Your task to perform on an android device: check google app version Image 0: 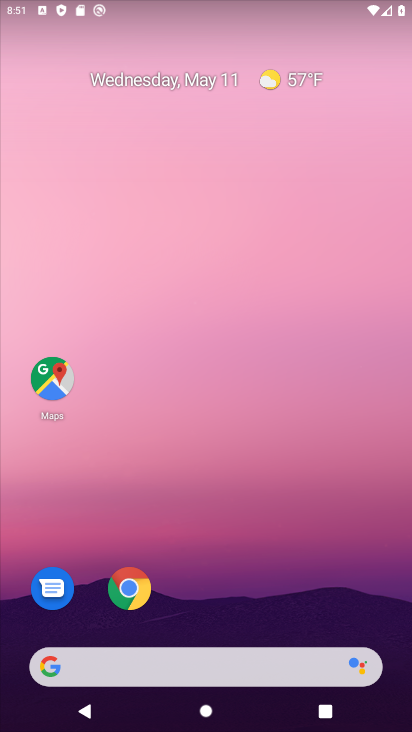
Step 0: drag from (238, 709) to (235, 201)
Your task to perform on an android device: check google app version Image 1: 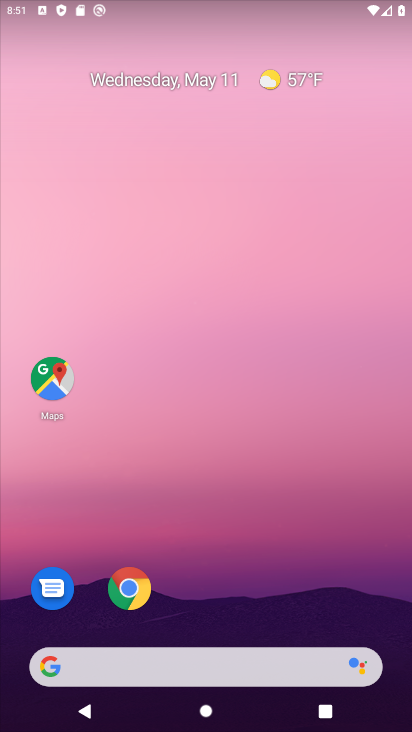
Step 1: drag from (248, 711) to (281, 156)
Your task to perform on an android device: check google app version Image 2: 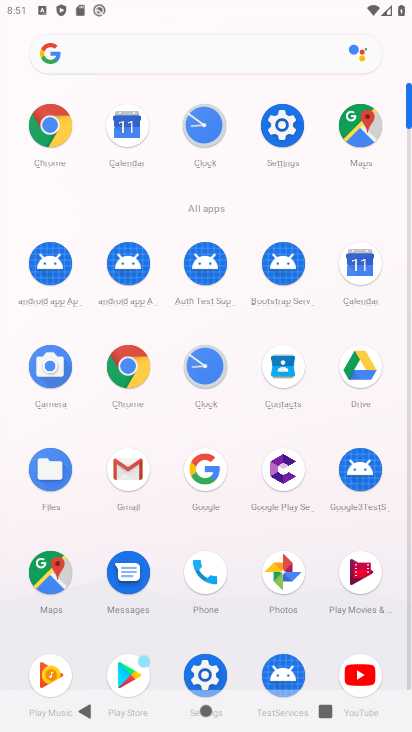
Step 2: drag from (160, 552) to (171, 214)
Your task to perform on an android device: check google app version Image 3: 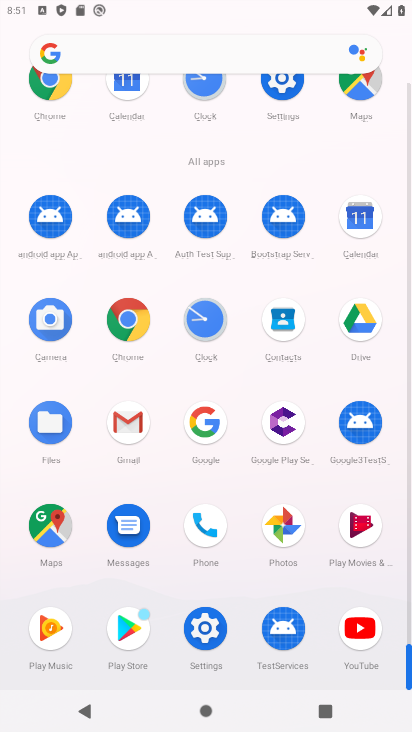
Step 3: click (194, 423)
Your task to perform on an android device: check google app version Image 4: 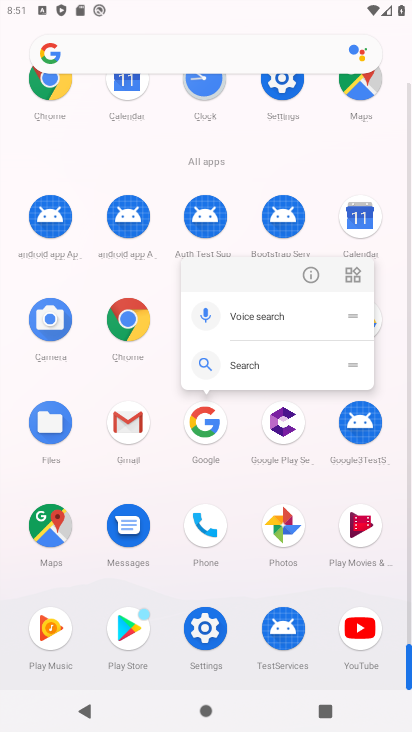
Step 4: click (310, 277)
Your task to perform on an android device: check google app version Image 5: 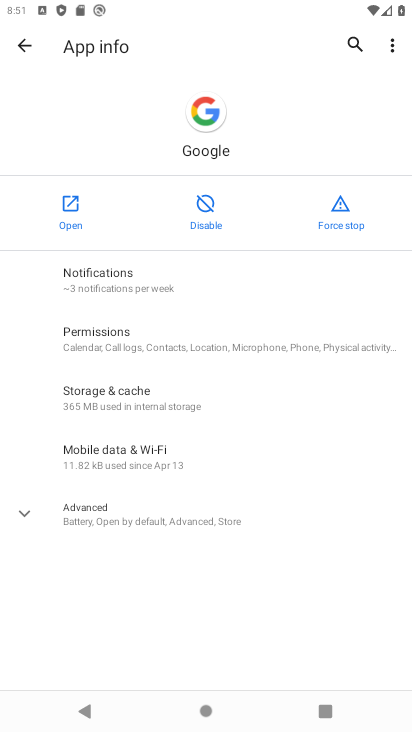
Step 5: drag from (323, 659) to (145, 214)
Your task to perform on an android device: check google app version Image 6: 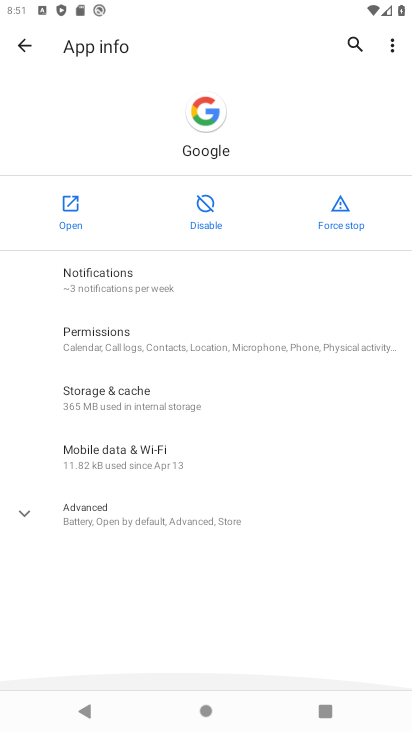
Step 6: click (122, 514)
Your task to perform on an android device: check google app version Image 7: 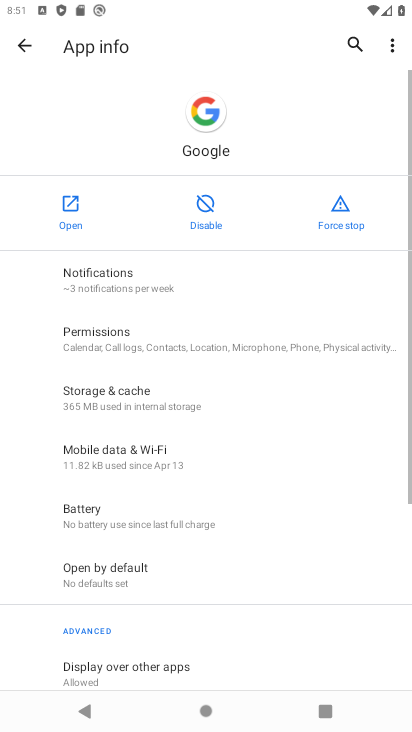
Step 7: task complete